Your task to perform on an android device: toggle show notifications on the lock screen Image 0: 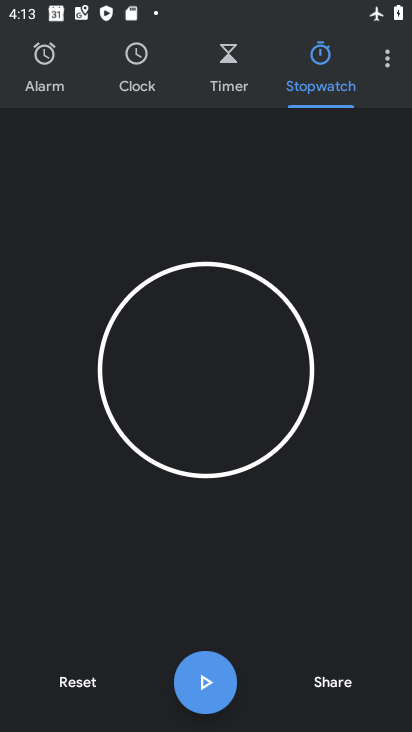
Step 0: press home button
Your task to perform on an android device: toggle show notifications on the lock screen Image 1: 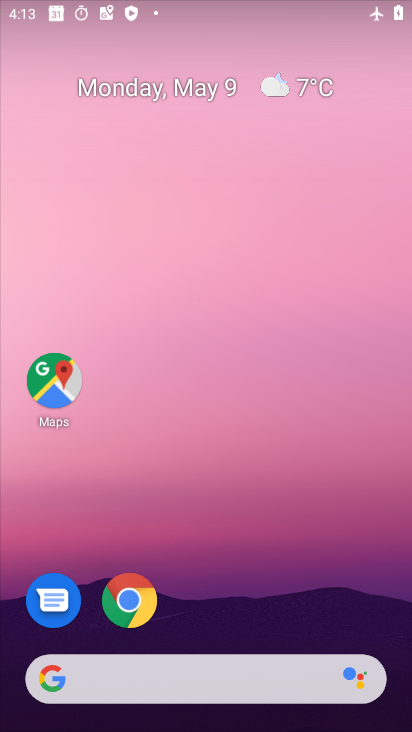
Step 1: drag from (311, 626) to (262, 155)
Your task to perform on an android device: toggle show notifications on the lock screen Image 2: 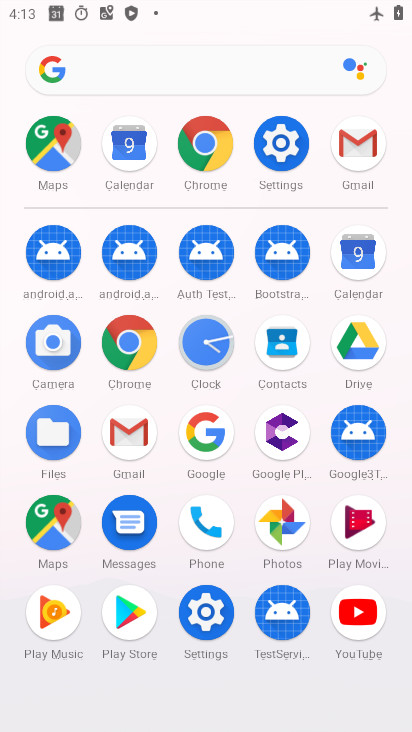
Step 2: click (272, 152)
Your task to perform on an android device: toggle show notifications on the lock screen Image 3: 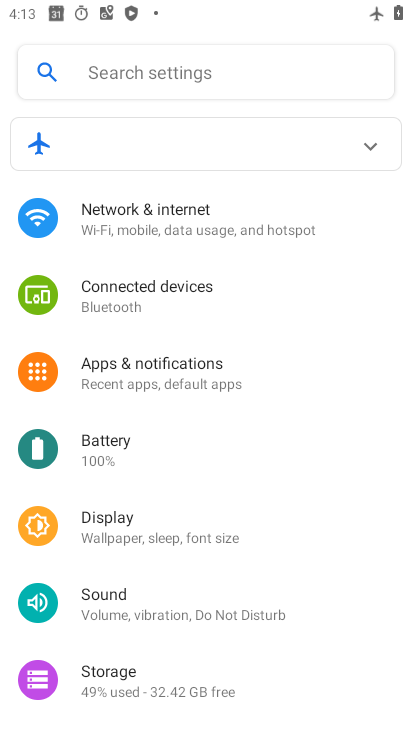
Step 3: click (159, 357)
Your task to perform on an android device: toggle show notifications on the lock screen Image 4: 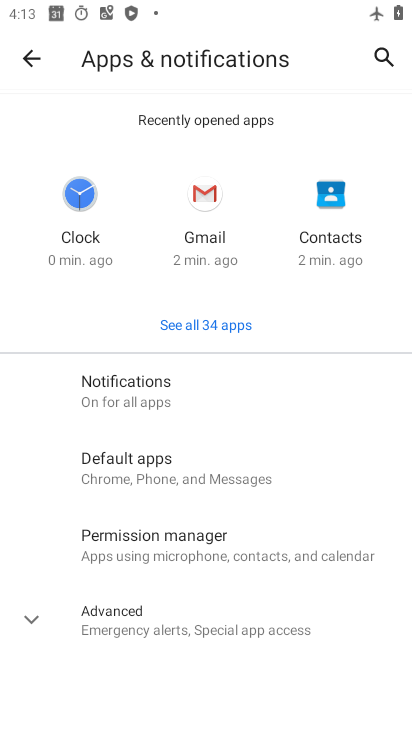
Step 4: click (153, 398)
Your task to perform on an android device: toggle show notifications on the lock screen Image 5: 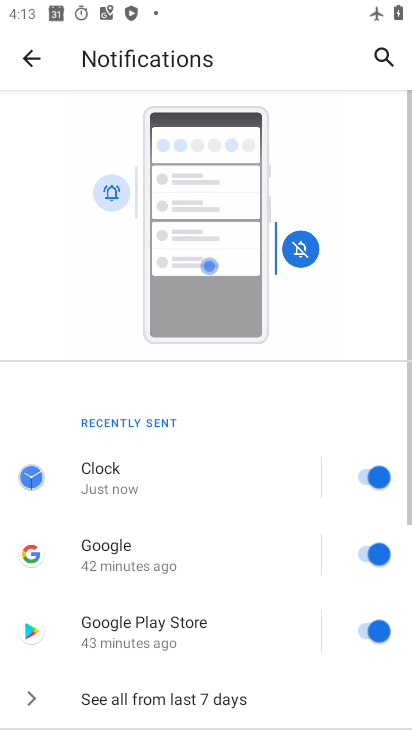
Step 5: drag from (254, 598) to (260, 20)
Your task to perform on an android device: toggle show notifications on the lock screen Image 6: 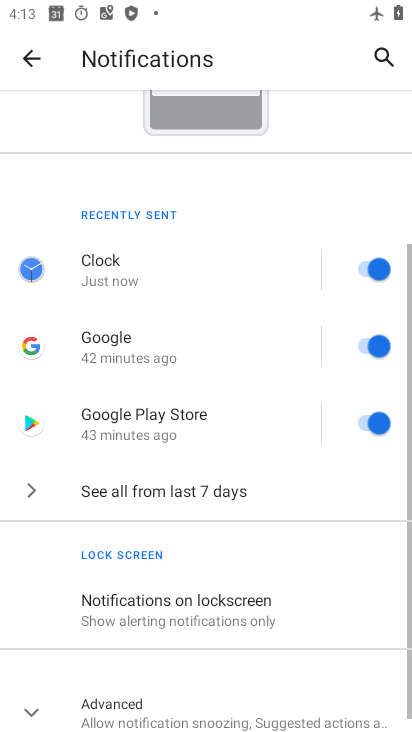
Step 6: click (197, 614)
Your task to perform on an android device: toggle show notifications on the lock screen Image 7: 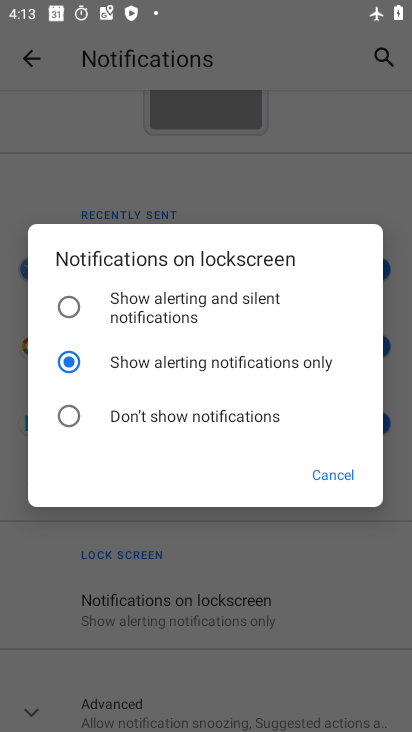
Step 7: click (167, 417)
Your task to perform on an android device: toggle show notifications on the lock screen Image 8: 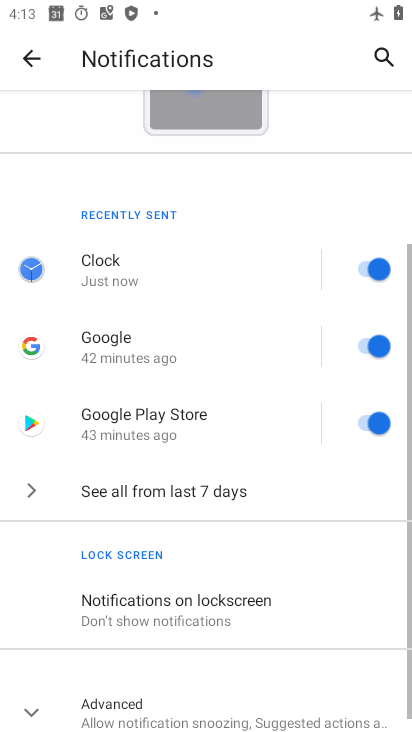
Step 8: task complete